Your task to perform on an android device: Search for Italian restaurants on Maps Image 0: 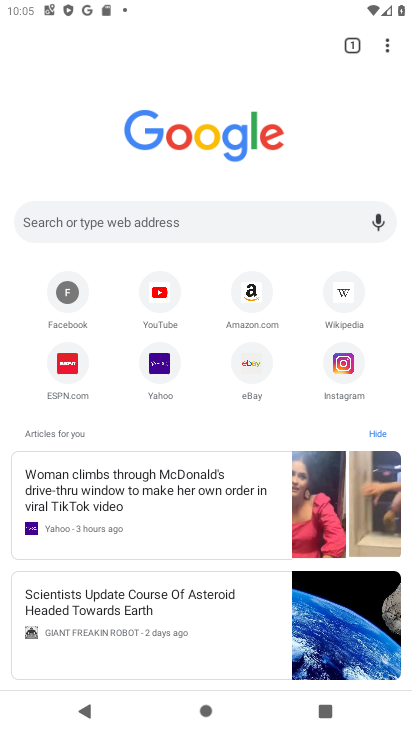
Step 0: press home button
Your task to perform on an android device: Search for Italian restaurants on Maps Image 1: 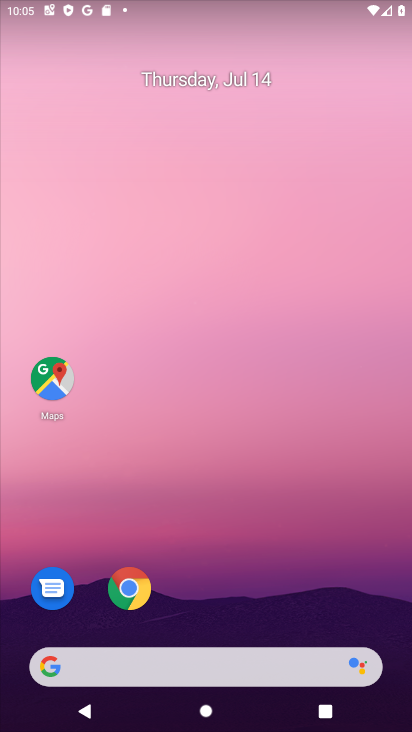
Step 1: click (45, 381)
Your task to perform on an android device: Search for Italian restaurants on Maps Image 2: 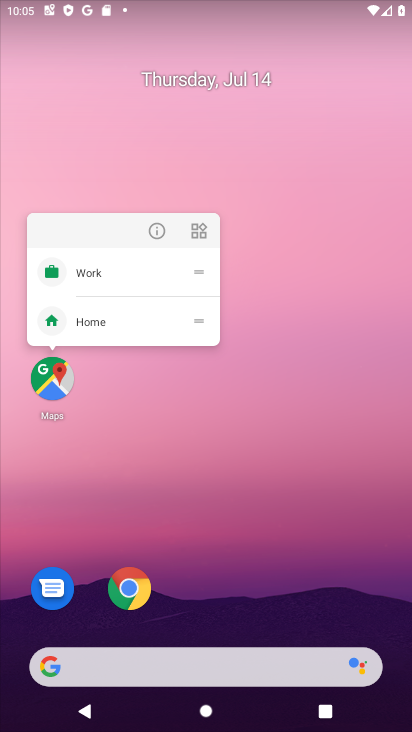
Step 2: click (61, 370)
Your task to perform on an android device: Search for Italian restaurants on Maps Image 3: 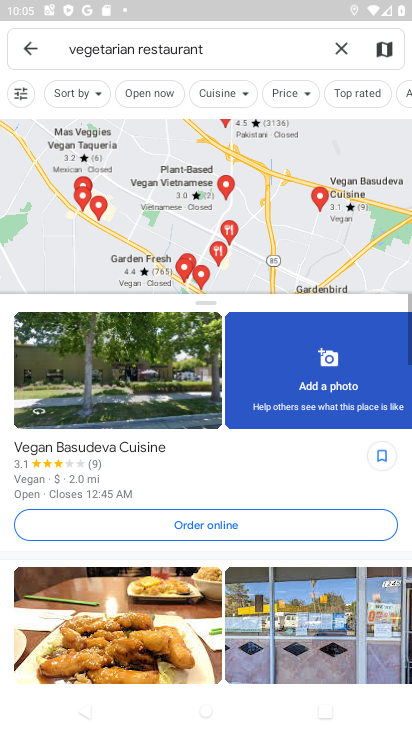
Step 3: click (339, 49)
Your task to perform on an android device: Search for Italian restaurants on Maps Image 4: 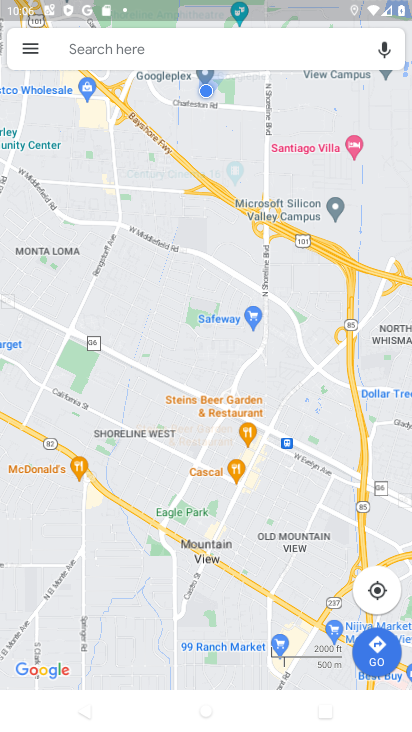
Step 4: click (188, 47)
Your task to perform on an android device: Search for Italian restaurants on Maps Image 5: 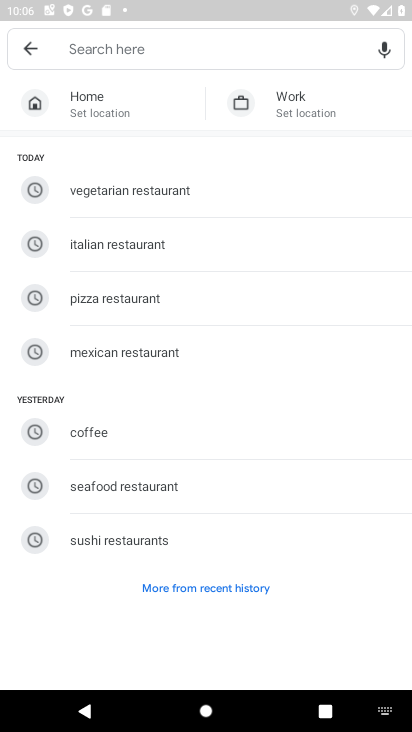
Step 5: click (141, 246)
Your task to perform on an android device: Search for Italian restaurants on Maps Image 6: 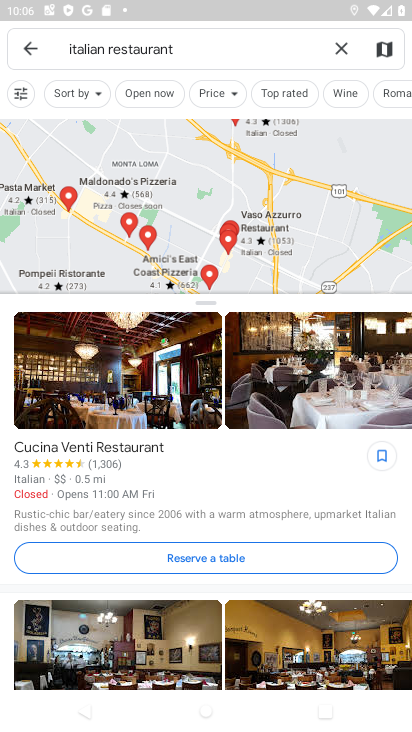
Step 6: task complete